Your task to perform on an android device: change notification settings in the gmail app Image 0: 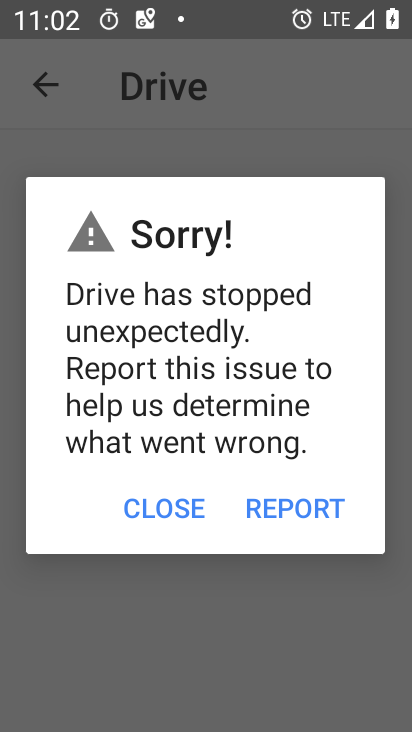
Step 0: press home button
Your task to perform on an android device: change notification settings in the gmail app Image 1: 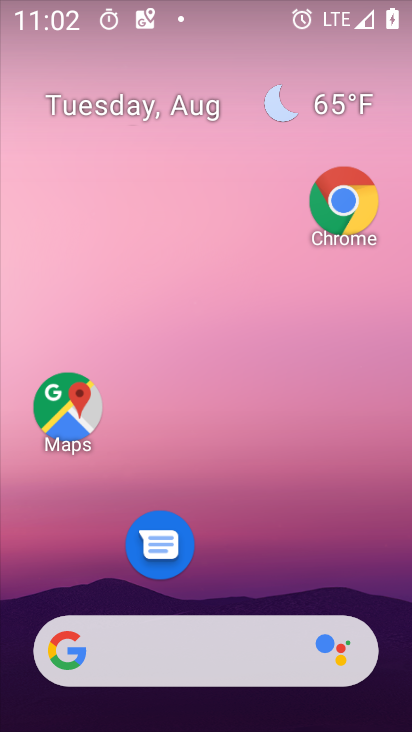
Step 1: drag from (194, 627) to (223, 127)
Your task to perform on an android device: change notification settings in the gmail app Image 2: 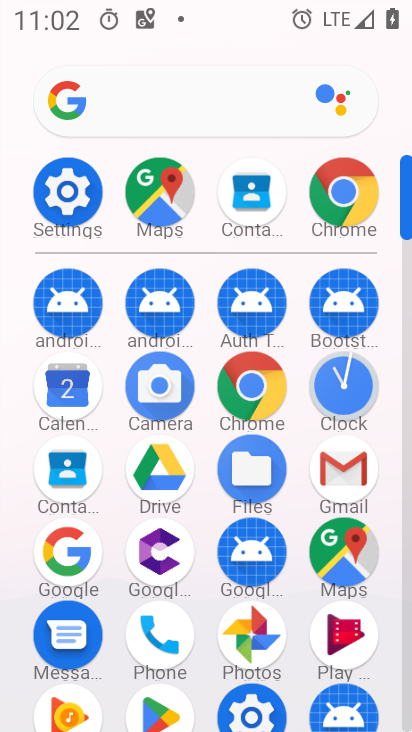
Step 2: click (338, 490)
Your task to perform on an android device: change notification settings in the gmail app Image 3: 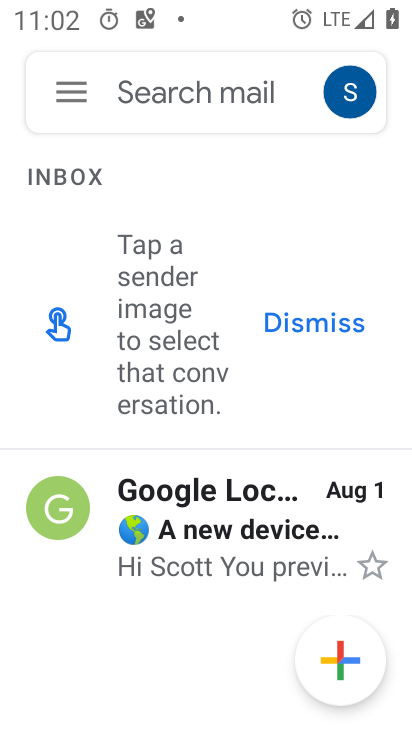
Step 3: click (52, 88)
Your task to perform on an android device: change notification settings in the gmail app Image 4: 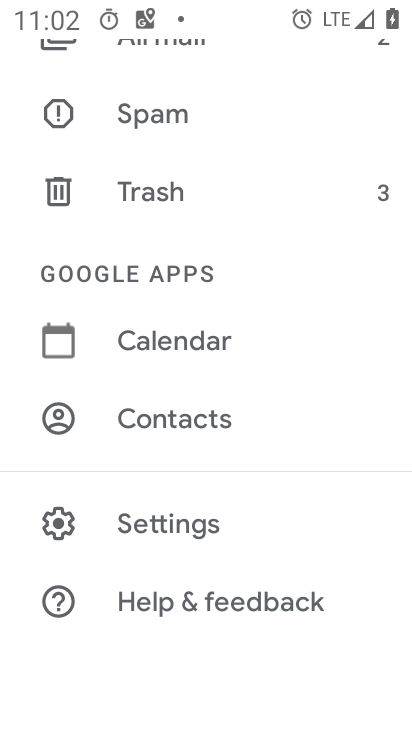
Step 4: click (148, 523)
Your task to perform on an android device: change notification settings in the gmail app Image 5: 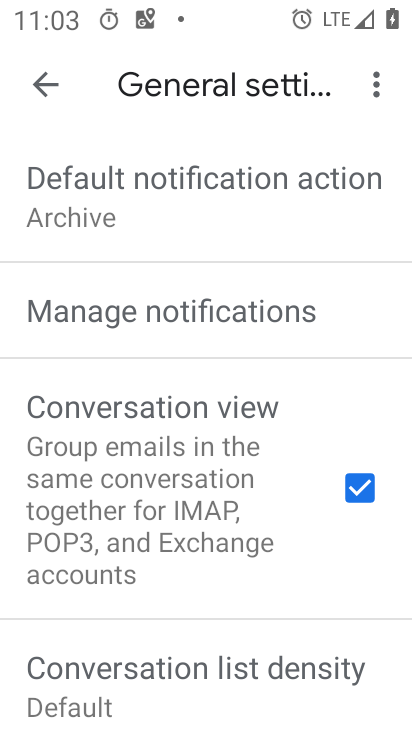
Step 5: click (233, 314)
Your task to perform on an android device: change notification settings in the gmail app Image 6: 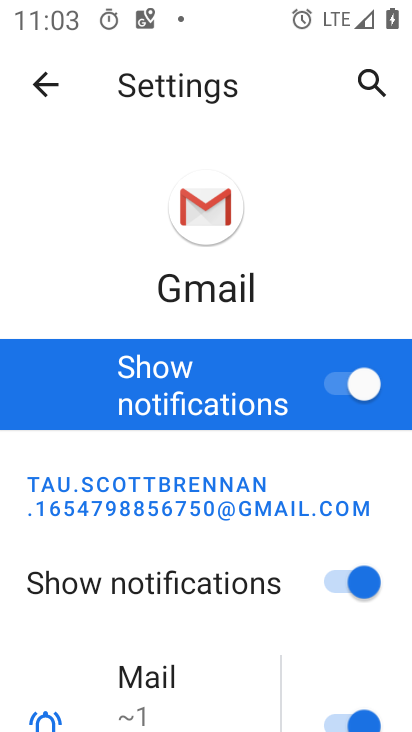
Step 6: click (351, 400)
Your task to perform on an android device: change notification settings in the gmail app Image 7: 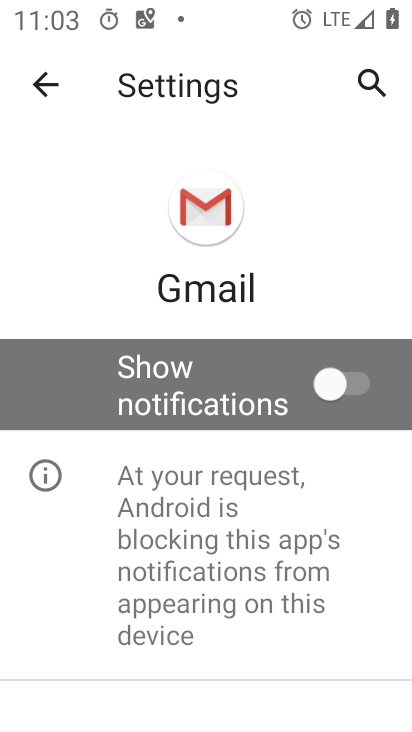
Step 7: task complete